Your task to perform on an android device: Open the map Image 0: 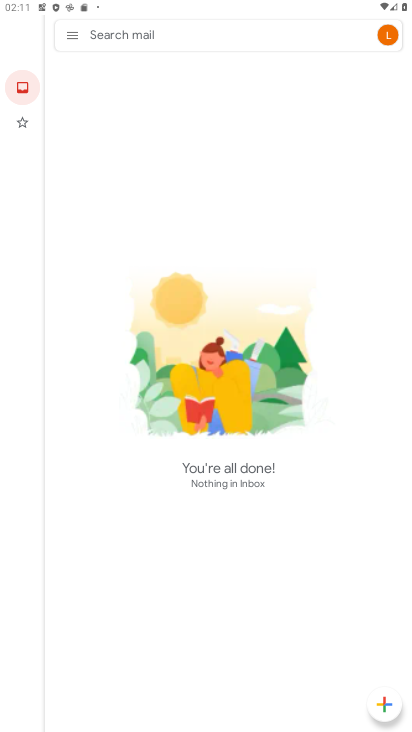
Step 0: press home button
Your task to perform on an android device: Open the map Image 1: 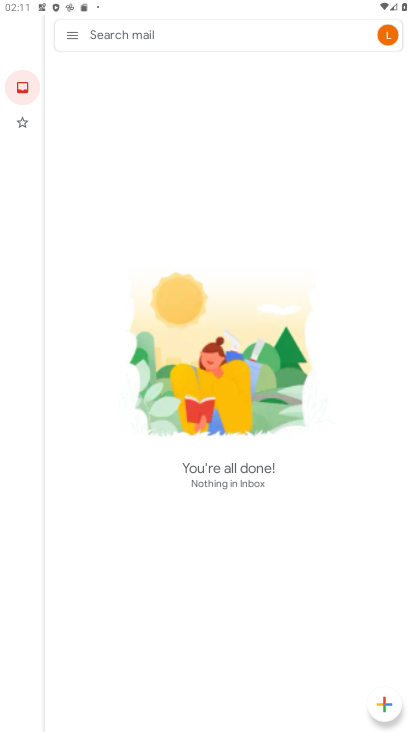
Step 1: press home button
Your task to perform on an android device: Open the map Image 2: 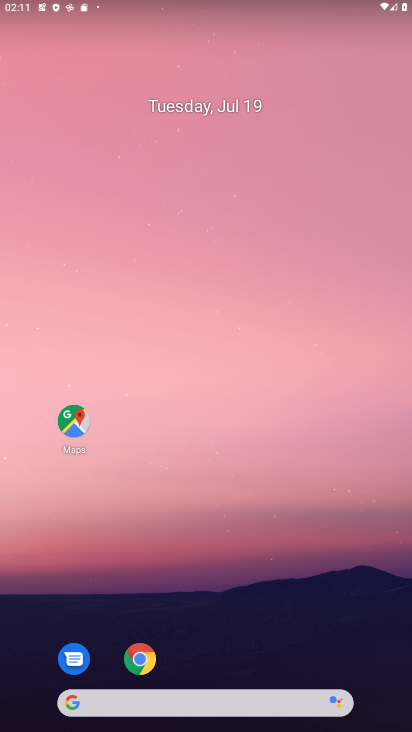
Step 2: drag from (292, 627) to (302, 537)
Your task to perform on an android device: Open the map Image 3: 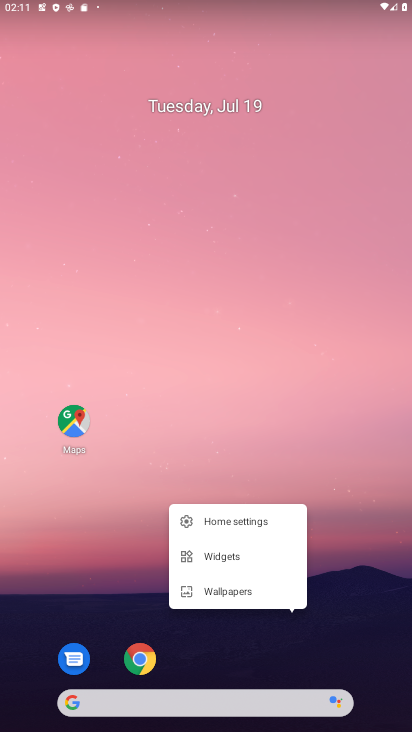
Step 3: click (327, 437)
Your task to perform on an android device: Open the map Image 4: 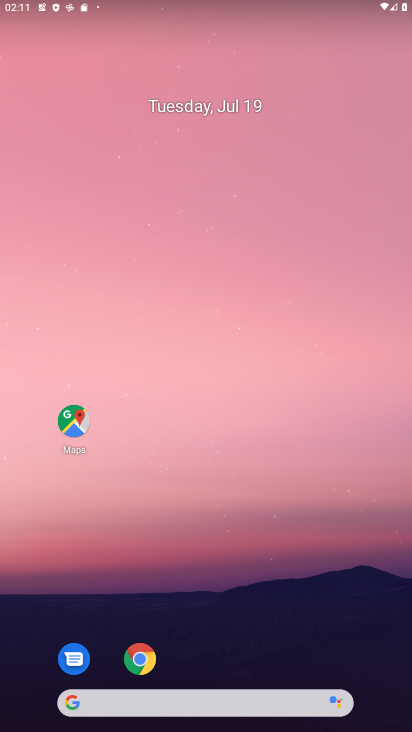
Step 4: click (69, 416)
Your task to perform on an android device: Open the map Image 5: 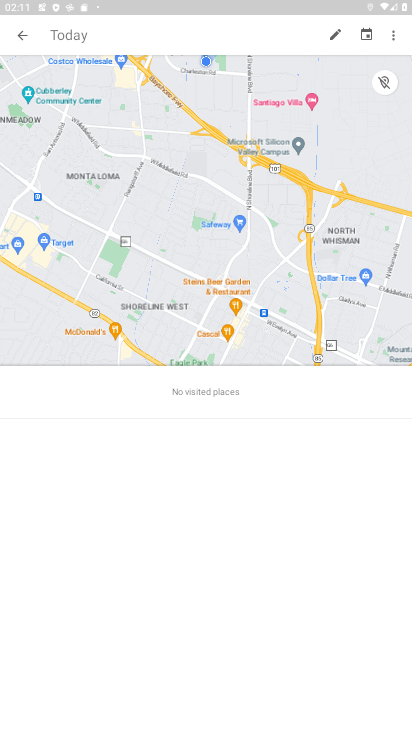
Step 5: task complete